Your task to perform on an android device: Go to display settings Image 0: 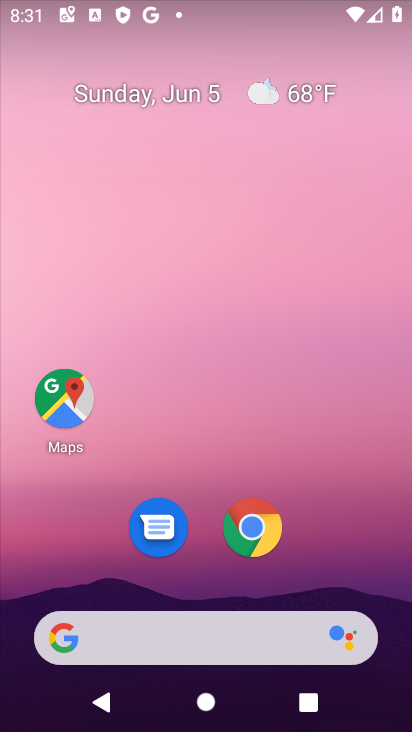
Step 0: drag from (196, 577) to (213, 107)
Your task to perform on an android device: Go to display settings Image 1: 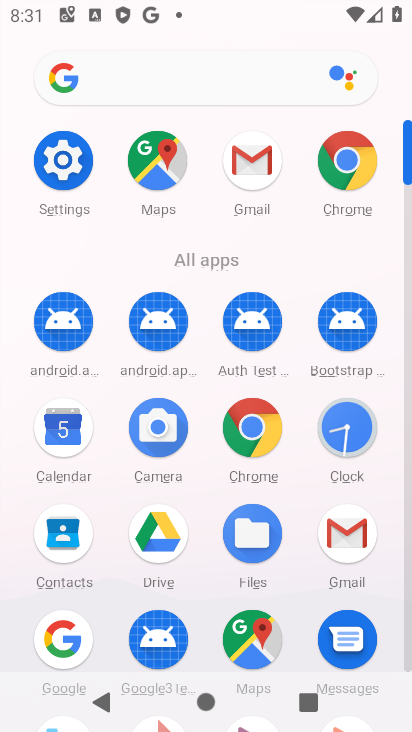
Step 1: click (95, 155)
Your task to perform on an android device: Go to display settings Image 2: 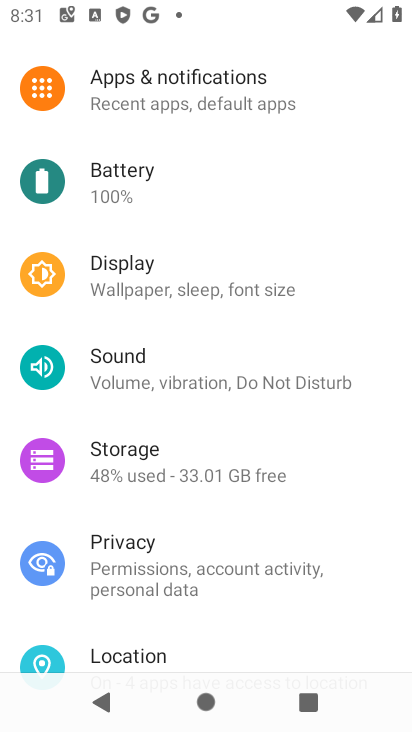
Step 2: click (142, 290)
Your task to perform on an android device: Go to display settings Image 3: 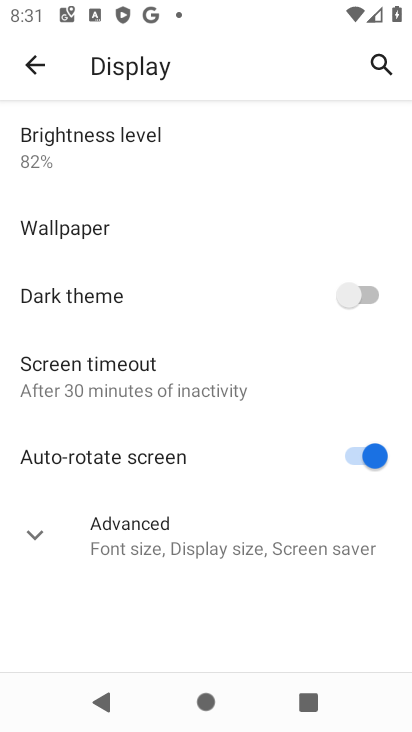
Step 3: task complete